Your task to perform on an android device: make emails show in primary in the gmail app Image 0: 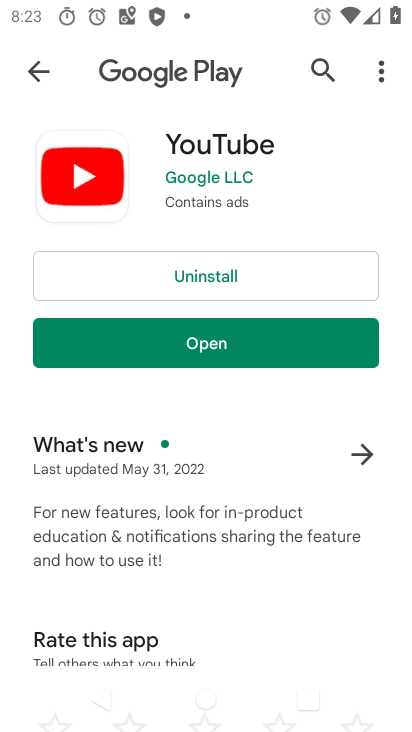
Step 0: press home button
Your task to perform on an android device: make emails show in primary in the gmail app Image 1: 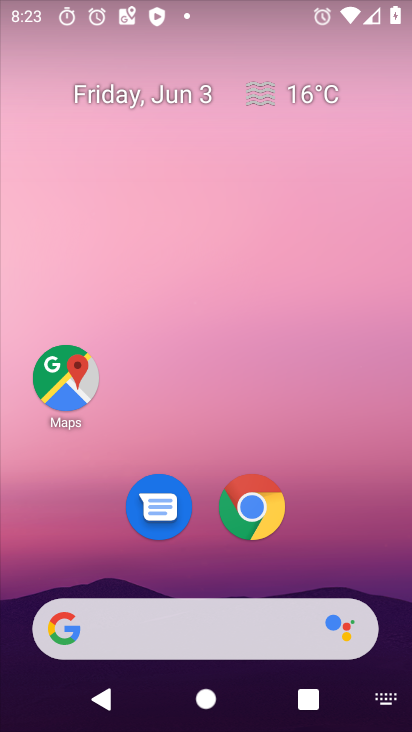
Step 1: drag from (353, 554) to (185, 21)
Your task to perform on an android device: make emails show in primary in the gmail app Image 2: 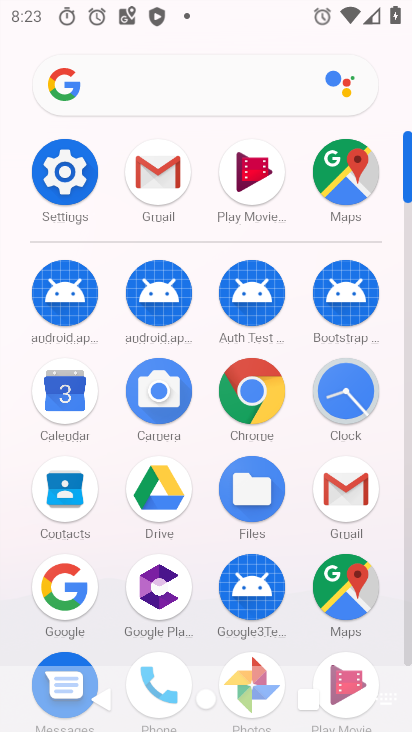
Step 2: click (165, 171)
Your task to perform on an android device: make emails show in primary in the gmail app Image 3: 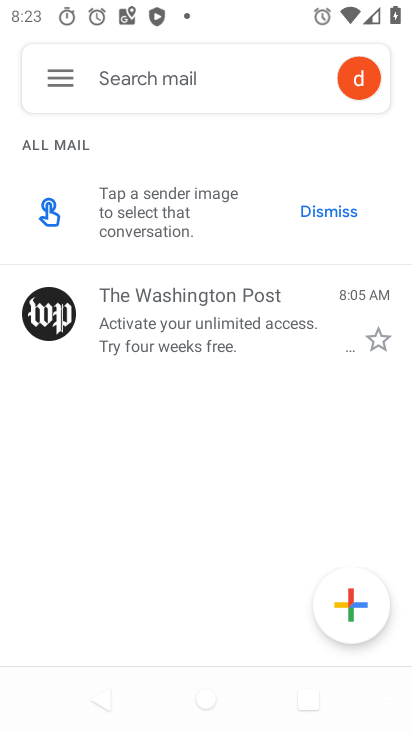
Step 3: click (69, 74)
Your task to perform on an android device: make emails show in primary in the gmail app Image 4: 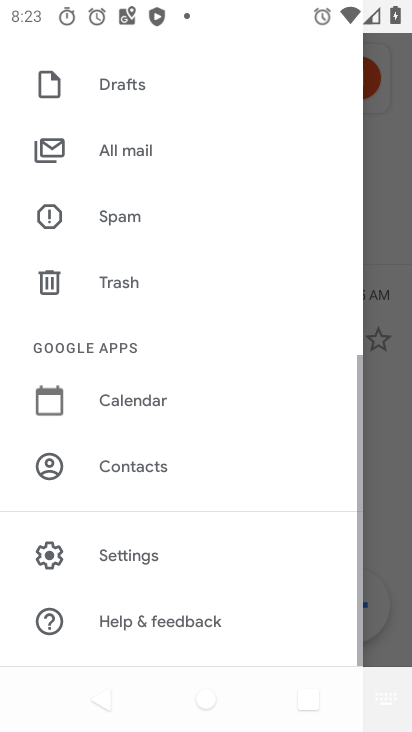
Step 4: task complete